Your task to perform on an android device: Open eBay Image 0: 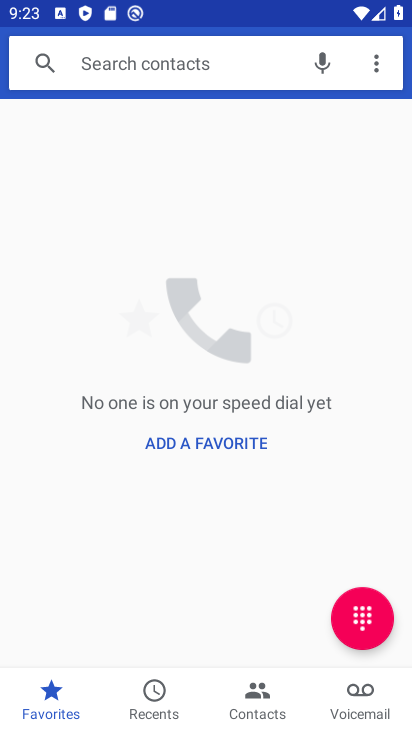
Step 0: press home button
Your task to perform on an android device: Open eBay Image 1: 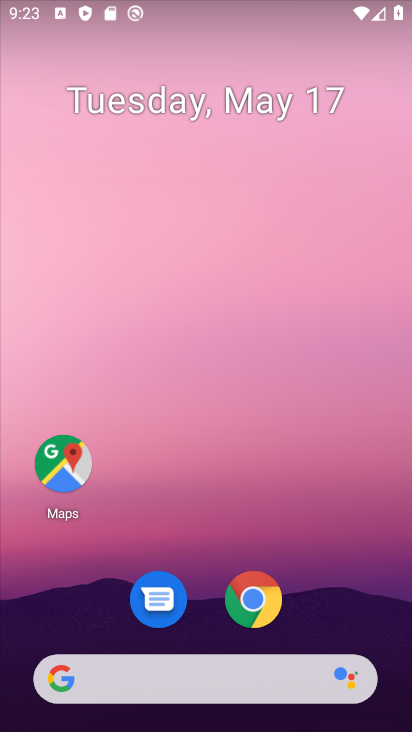
Step 1: click (357, 344)
Your task to perform on an android device: Open eBay Image 2: 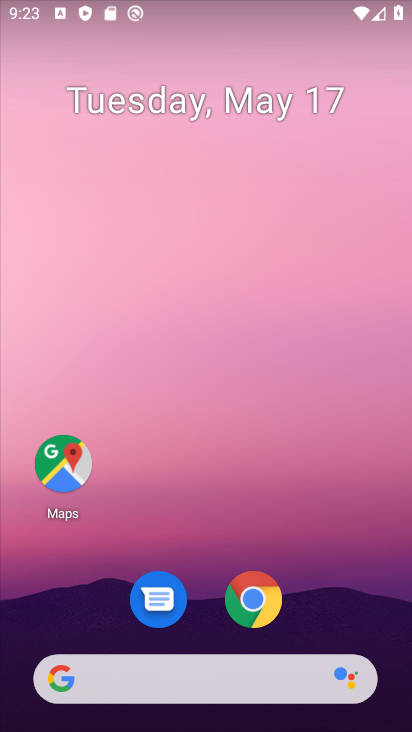
Step 2: click (399, 225)
Your task to perform on an android device: Open eBay Image 3: 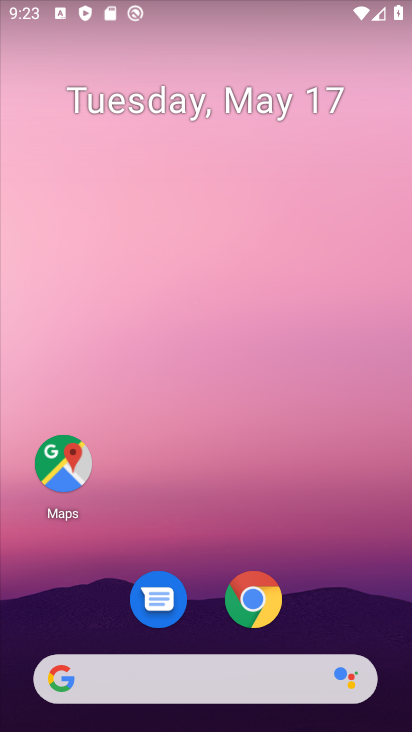
Step 3: click (254, 601)
Your task to perform on an android device: Open eBay Image 4: 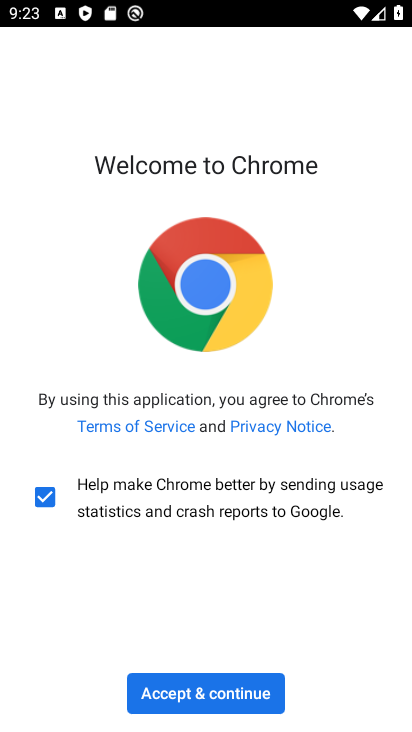
Step 4: click (243, 691)
Your task to perform on an android device: Open eBay Image 5: 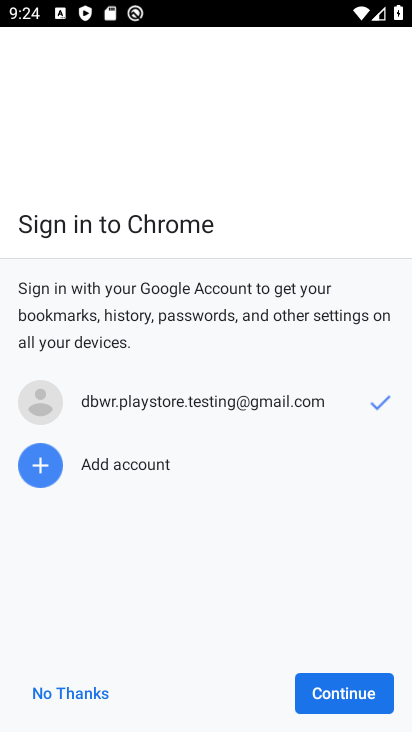
Step 5: click (324, 691)
Your task to perform on an android device: Open eBay Image 6: 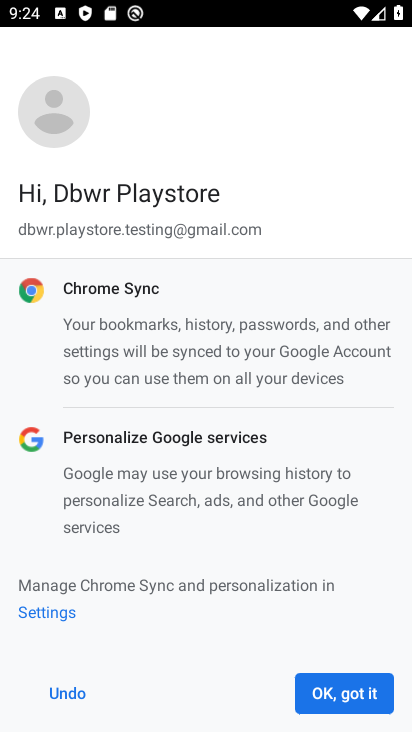
Step 6: click (320, 689)
Your task to perform on an android device: Open eBay Image 7: 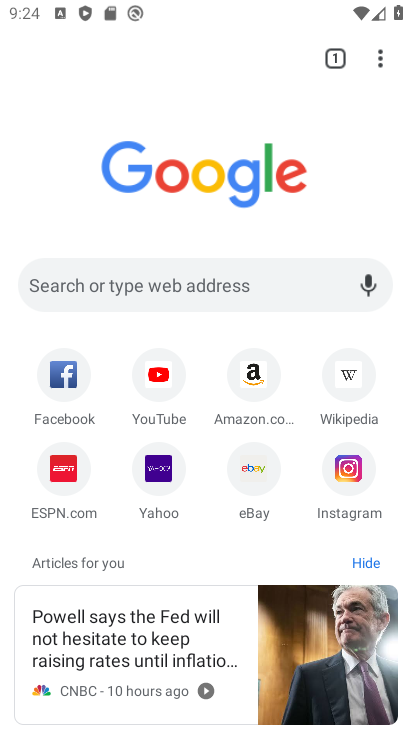
Step 7: click (124, 286)
Your task to perform on an android device: Open eBay Image 8: 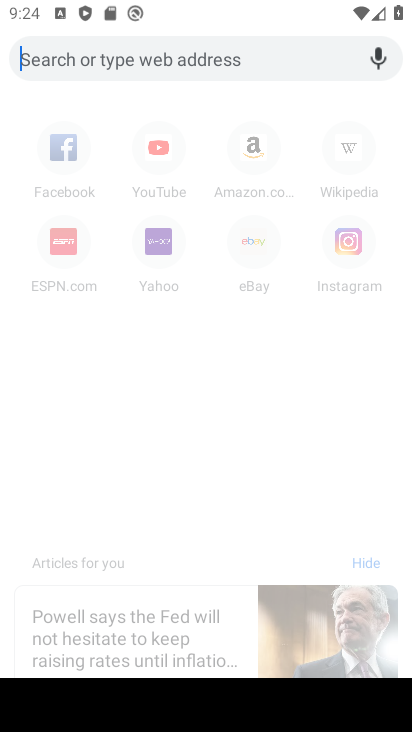
Step 8: type "eBay"
Your task to perform on an android device: Open eBay Image 9: 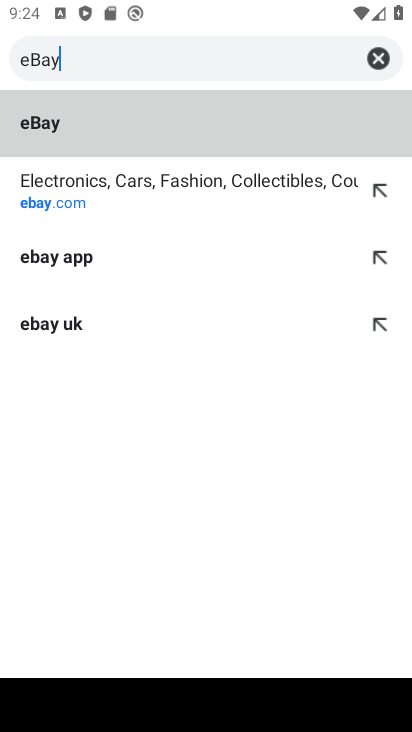
Step 9: click (45, 122)
Your task to perform on an android device: Open eBay Image 10: 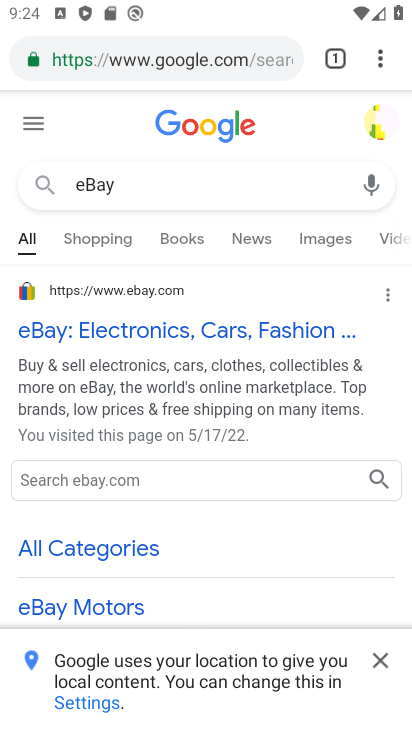
Step 10: task complete